Your task to perform on an android device: Go to ESPN.com Image 0: 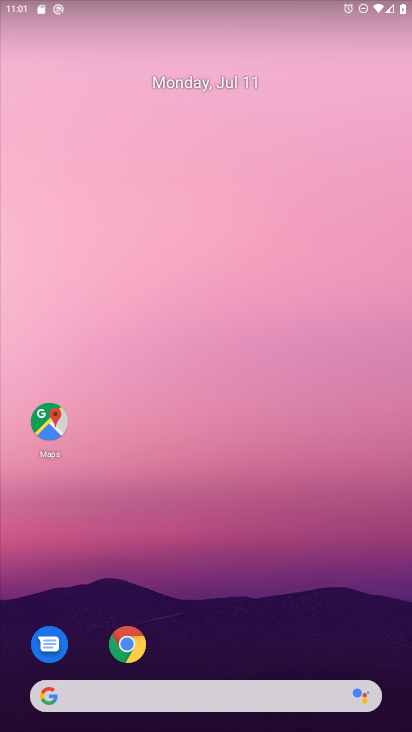
Step 0: click (131, 653)
Your task to perform on an android device: Go to ESPN.com Image 1: 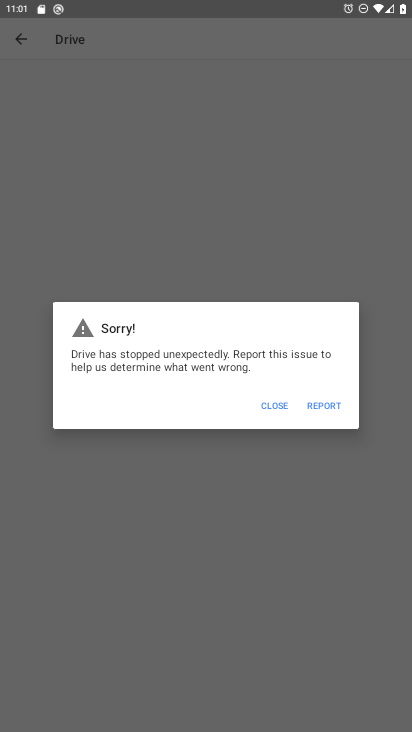
Step 1: press home button
Your task to perform on an android device: Go to ESPN.com Image 2: 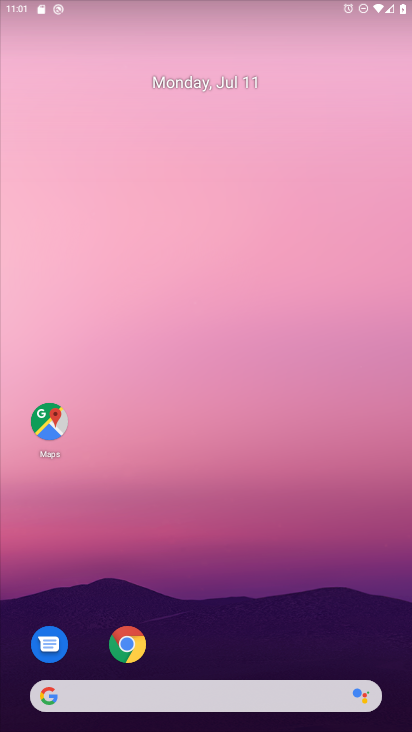
Step 2: click (136, 661)
Your task to perform on an android device: Go to ESPN.com Image 3: 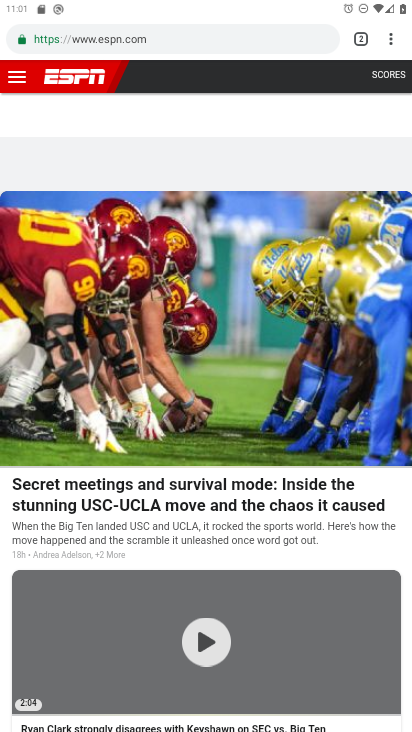
Step 3: task complete